Your task to perform on an android device: Search for flights from Helsinki to Tokyo Image 0: 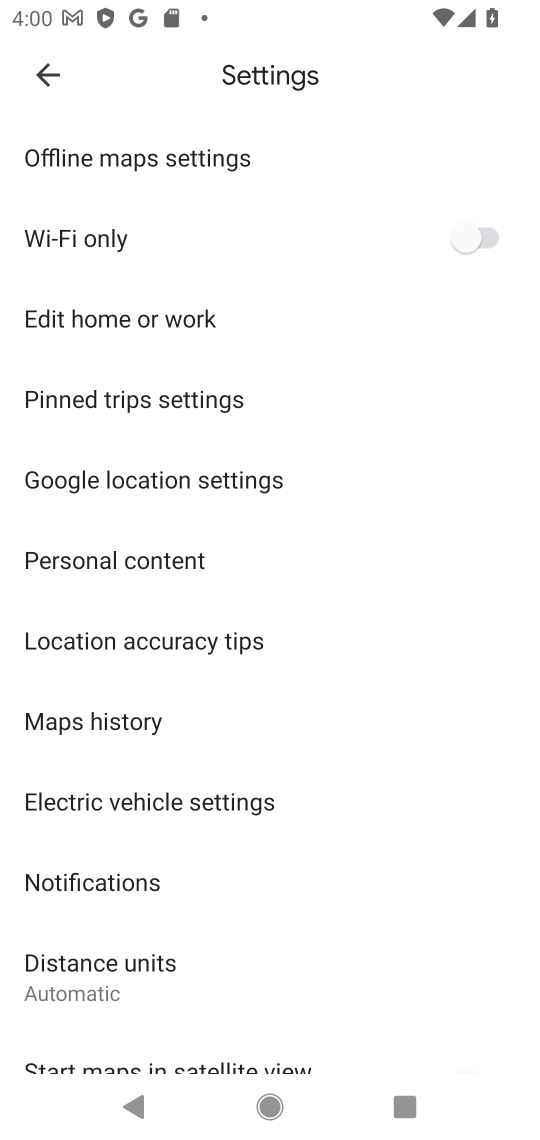
Step 0: press home button
Your task to perform on an android device: Search for flights from Helsinki to Tokyo Image 1: 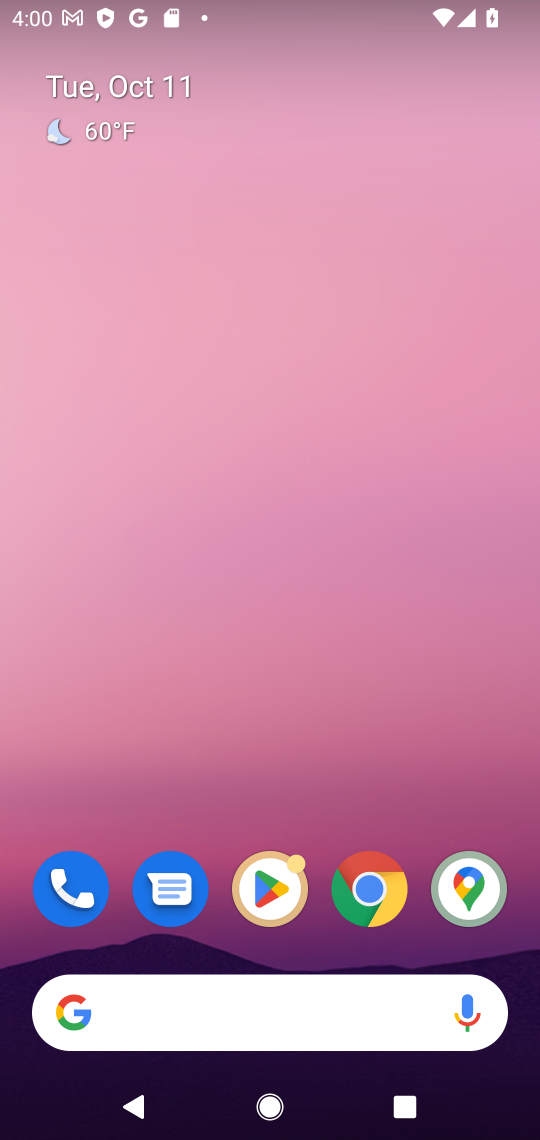
Step 1: drag from (275, 936) to (267, 313)
Your task to perform on an android device: Search for flights from Helsinki to Tokyo Image 2: 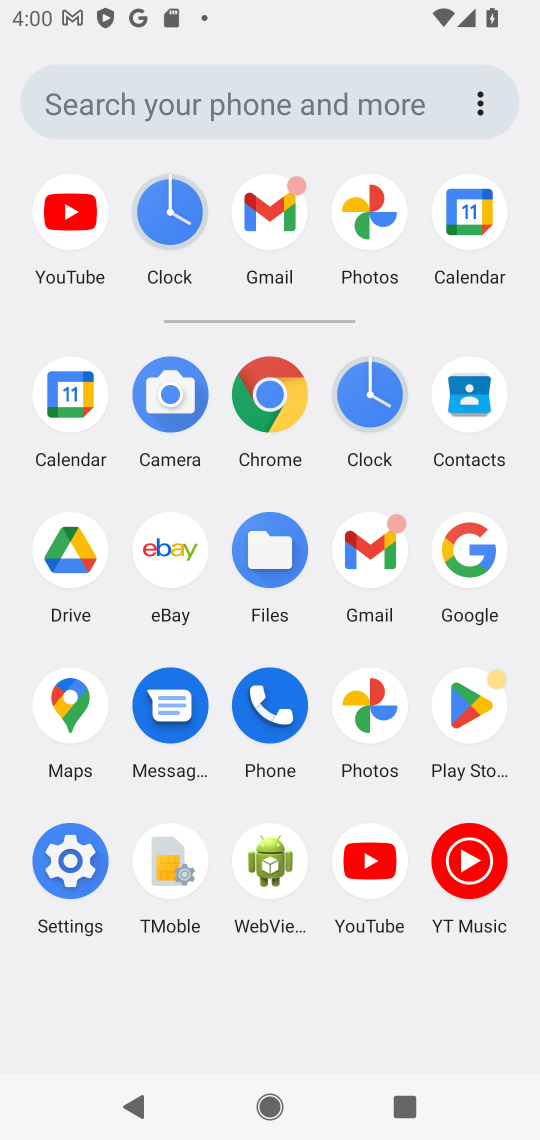
Step 2: click (462, 535)
Your task to perform on an android device: Search for flights from Helsinki to Tokyo Image 3: 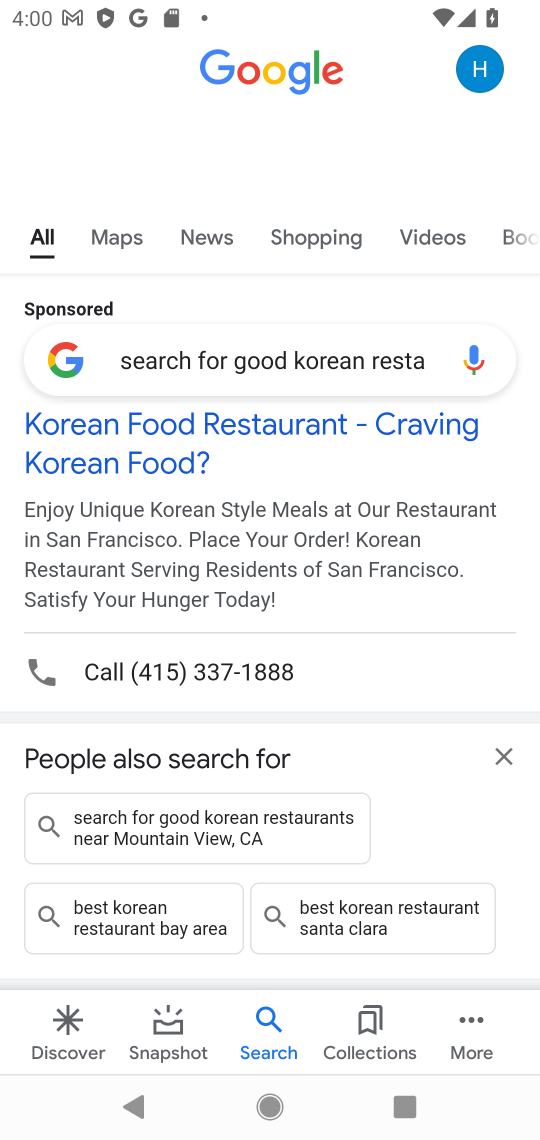
Step 3: click (231, 359)
Your task to perform on an android device: Search for flights from Helsinki to Tokyo Image 4: 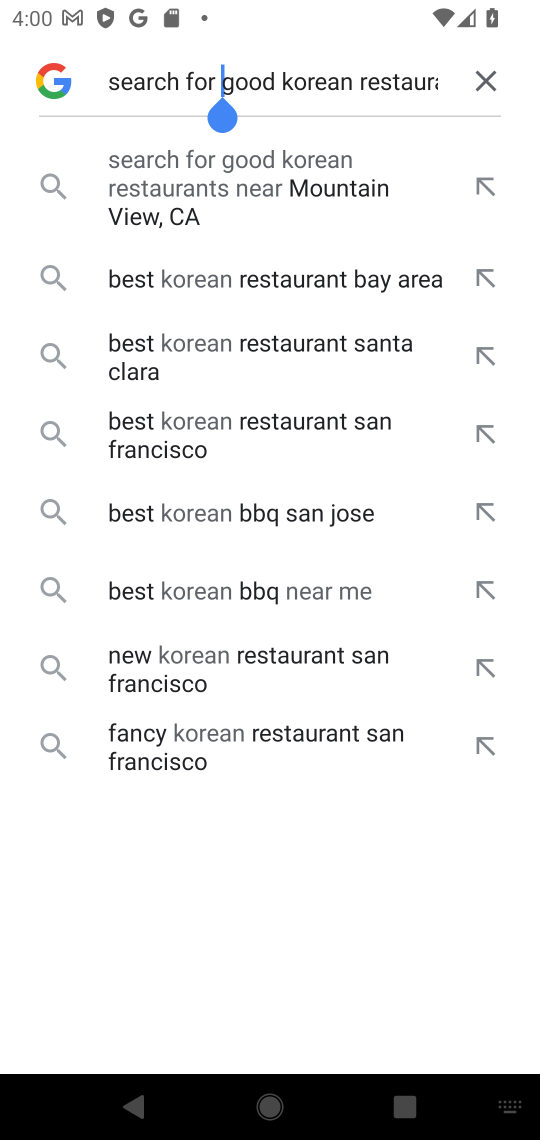
Step 4: click (476, 75)
Your task to perform on an android device: Search for flights from Helsinki to Tokyo Image 5: 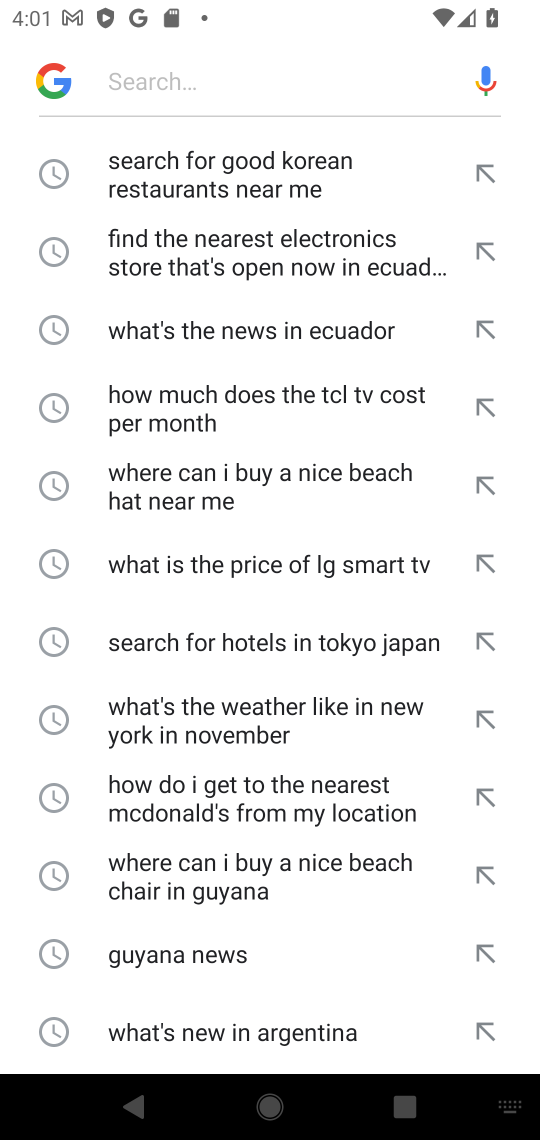
Step 5: click (264, 104)
Your task to perform on an android device: Search for flights from Helsinki to Tokyo Image 6: 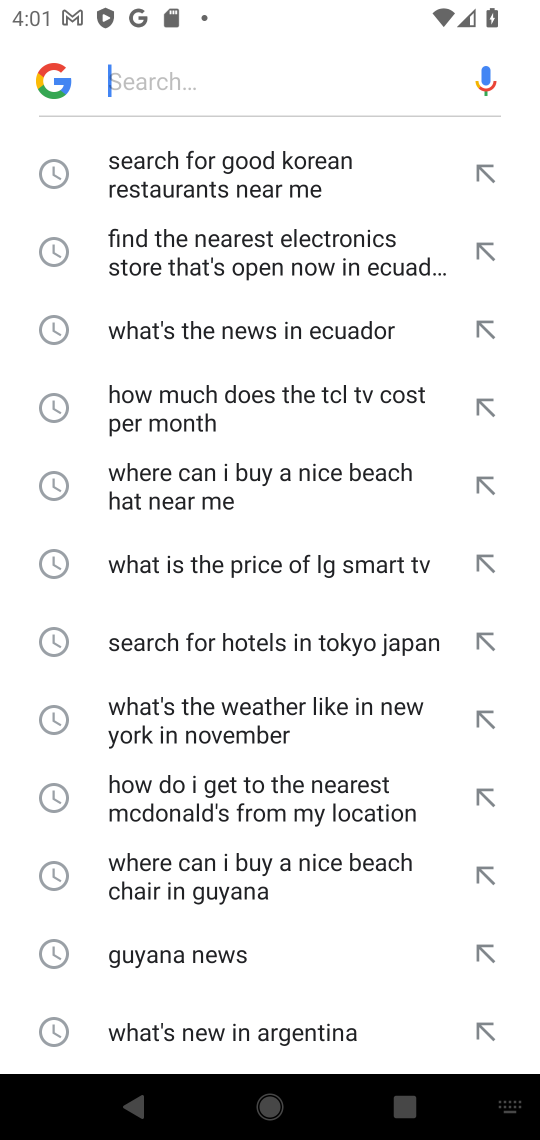
Step 6: click (267, 79)
Your task to perform on an android device: Search for flights from Helsinki to Tokyo Image 7: 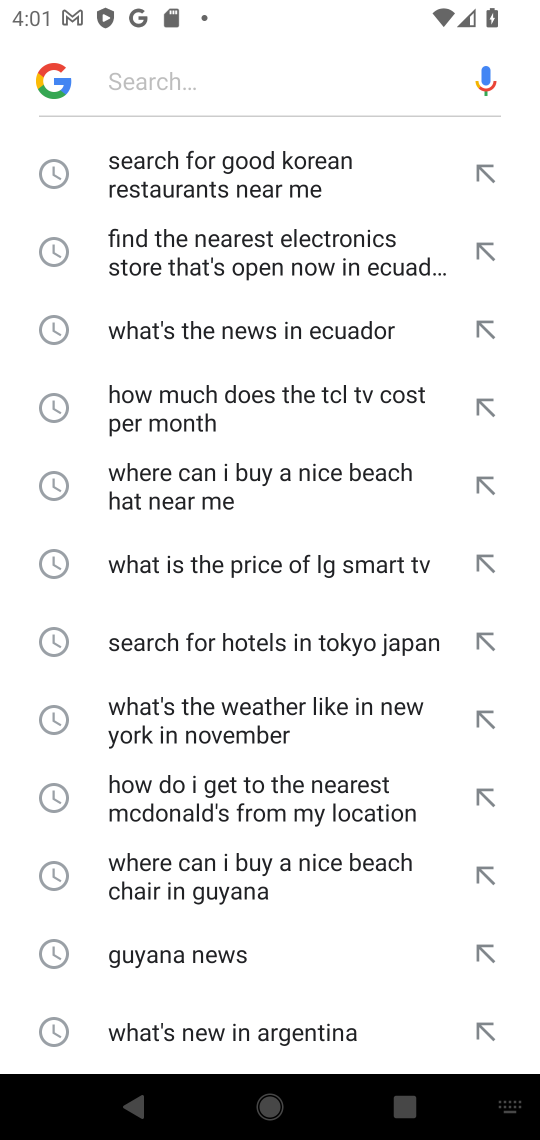
Step 7: type "Search for flights from Helsinki to Tokyo "
Your task to perform on an android device: Search for flights from Helsinki to Tokyo Image 8: 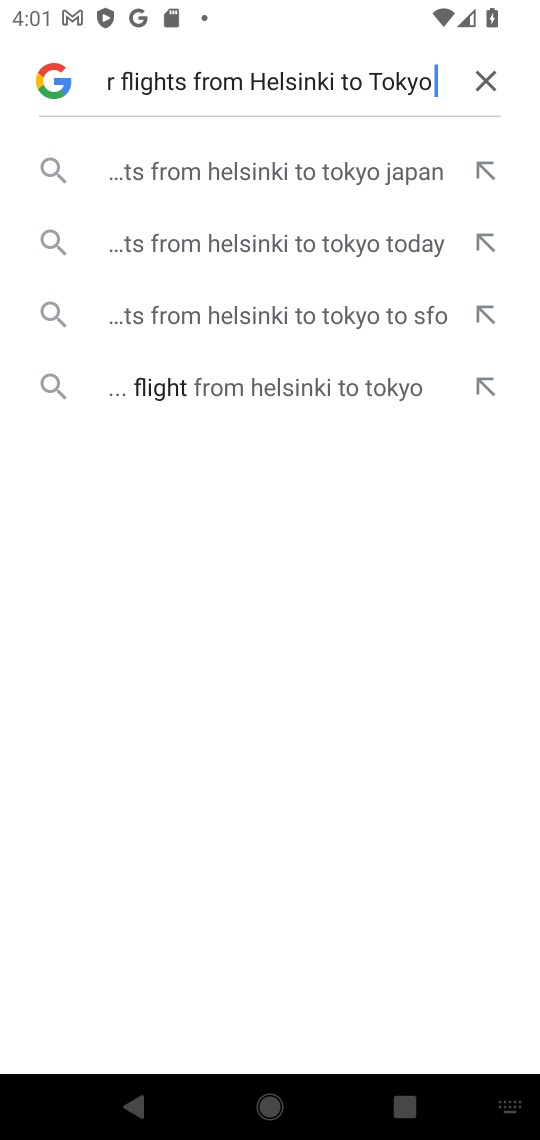
Step 8: click (284, 170)
Your task to perform on an android device: Search for flights from Helsinki to Tokyo Image 9: 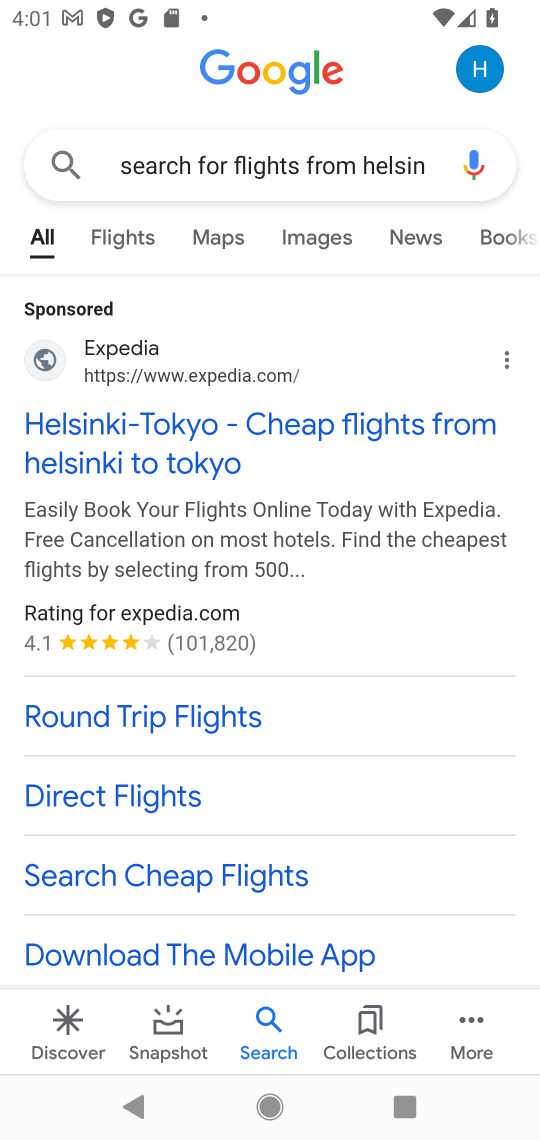
Step 9: click (379, 430)
Your task to perform on an android device: Search for flights from Helsinki to Tokyo Image 10: 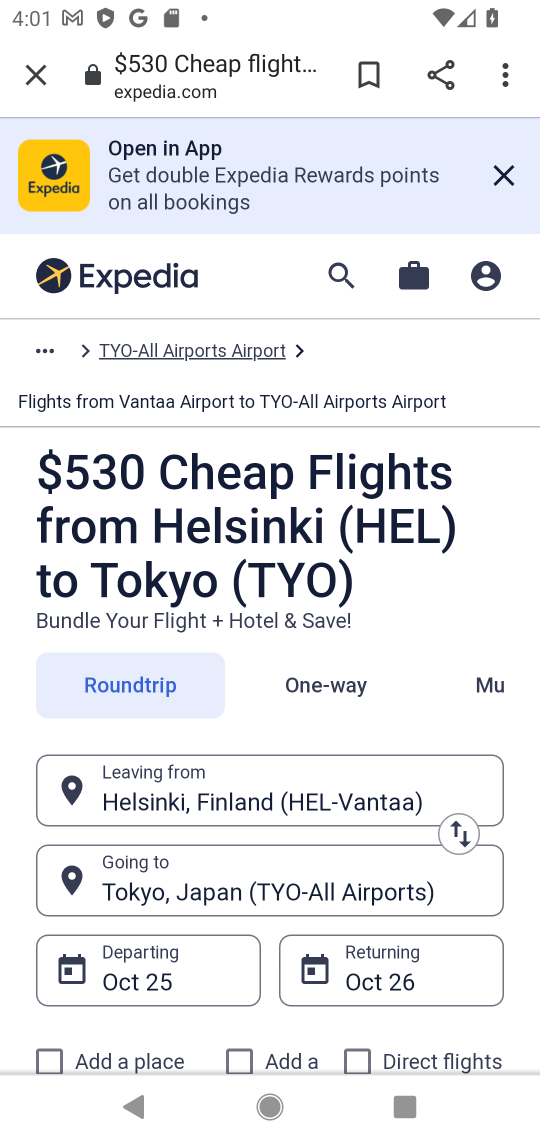
Step 10: drag from (329, 960) to (351, 334)
Your task to perform on an android device: Search for flights from Helsinki to Tokyo Image 11: 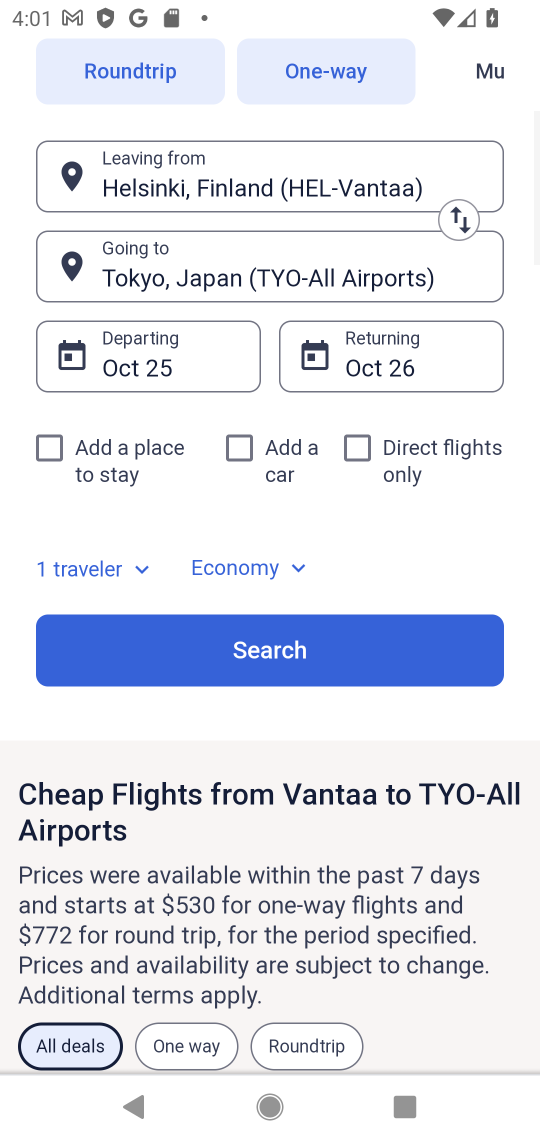
Step 11: click (323, 625)
Your task to perform on an android device: Search for flights from Helsinki to Tokyo Image 12: 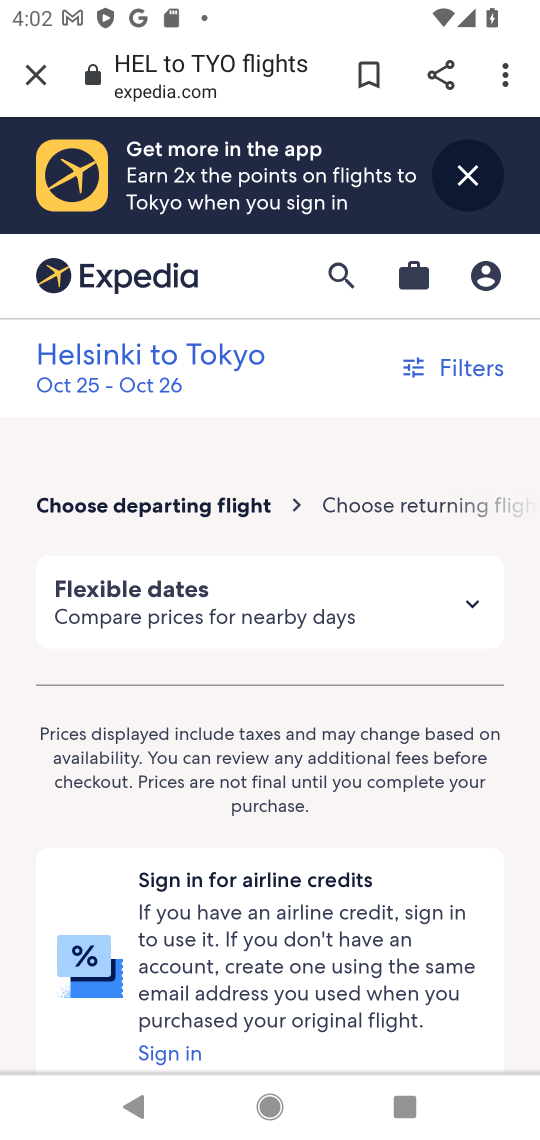
Step 12: task complete